Your task to perform on an android device: How much does a 3 bedroom apartment rent for in Boston? Image 0: 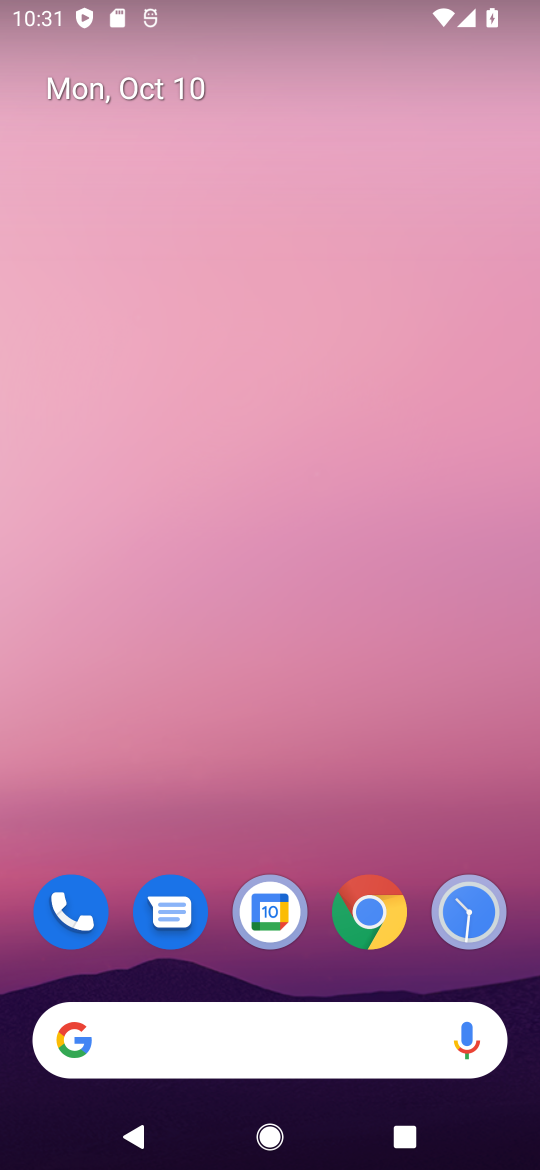
Step 0: click (66, 1031)
Your task to perform on an android device: How much does a 3 bedroom apartment rent for in Boston? Image 1: 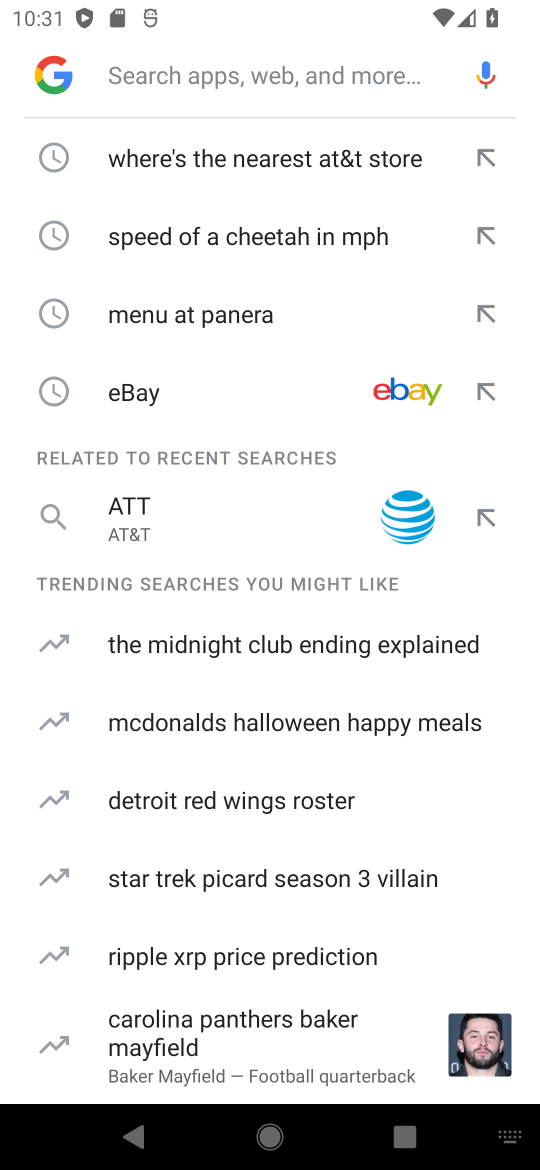
Step 1: type "How much does a 3 bedroom apartment rent for in Boston?"
Your task to perform on an android device: How much does a 3 bedroom apartment rent for in Boston? Image 2: 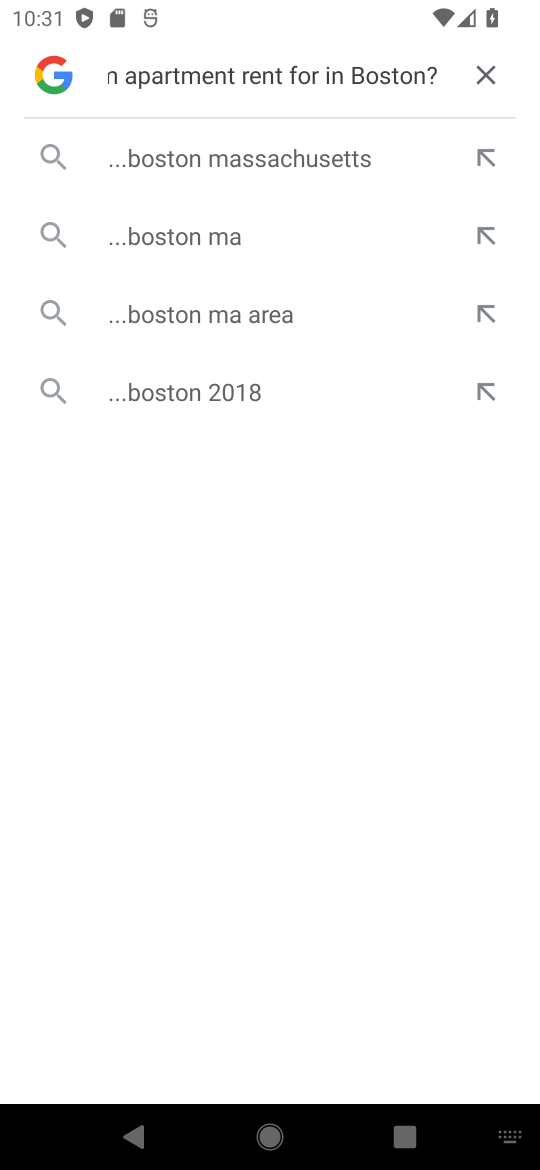
Step 2: click (231, 164)
Your task to perform on an android device: How much does a 3 bedroom apartment rent for in Boston? Image 3: 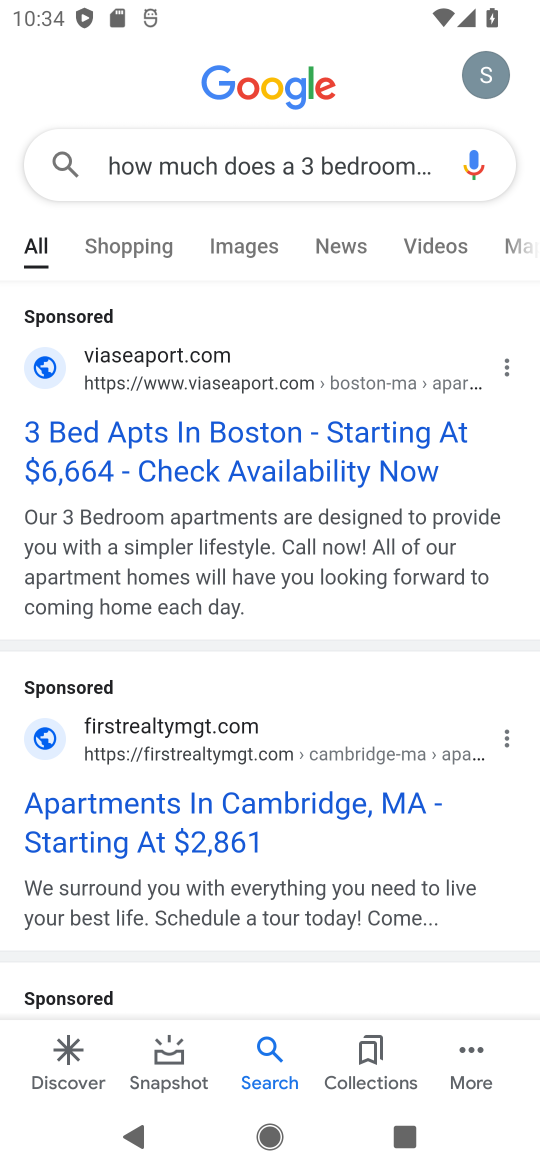
Step 3: task complete